Your task to perform on an android device: turn on priority inbox in the gmail app Image 0: 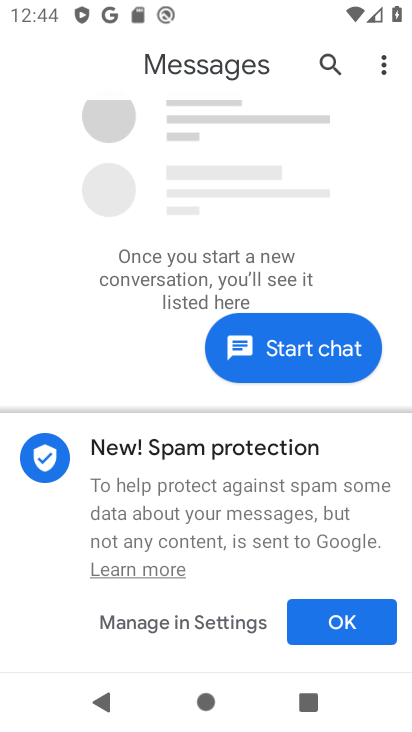
Step 0: press home button
Your task to perform on an android device: turn on priority inbox in the gmail app Image 1: 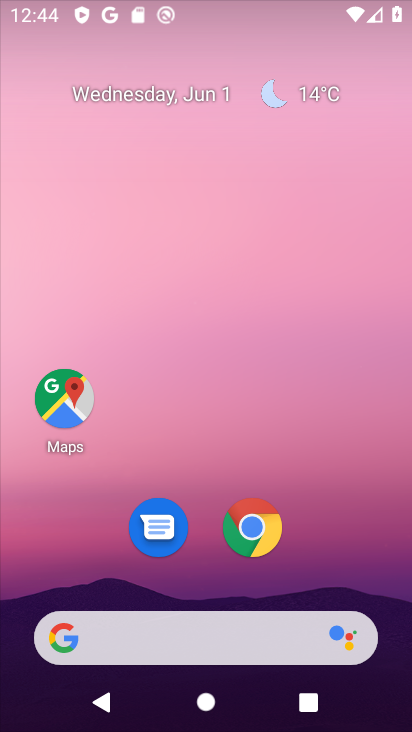
Step 1: drag from (245, 665) to (304, 127)
Your task to perform on an android device: turn on priority inbox in the gmail app Image 2: 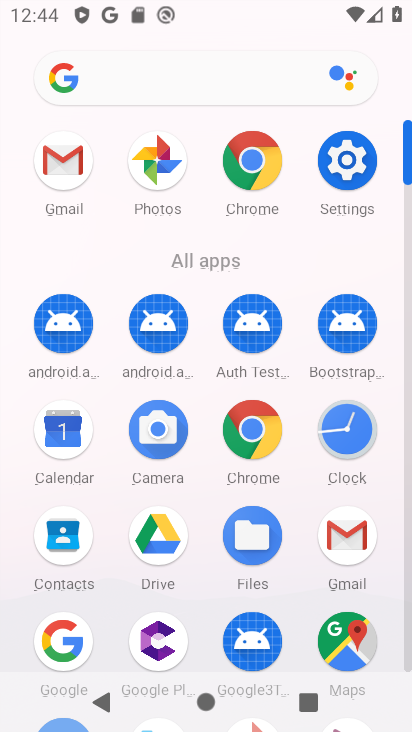
Step 2: click (358, 557)
Your task to perform on an android device: turn on priority inbox in the gmail app Image 3: 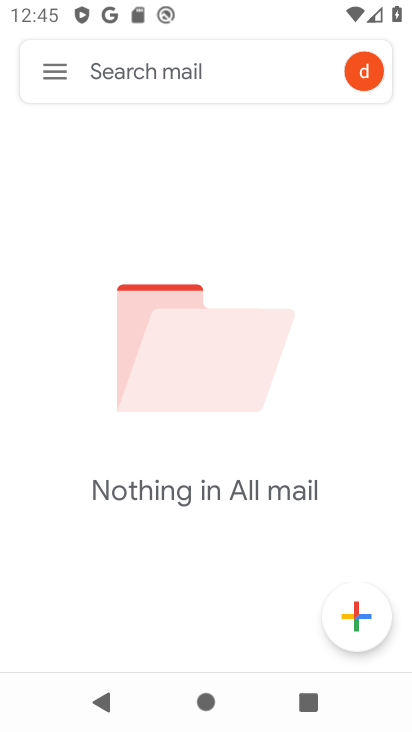
Step 3: click (76, 108)
Your task to perform on an android device: turn on priority inbox in the gmail app Image 4: 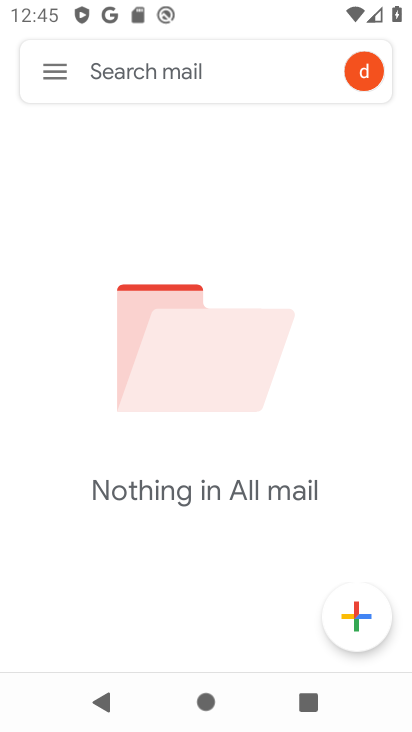
Step 4: click (63, 84)
Your task to perform on an android device: turn on priority inbox in the gmail app Image 5: 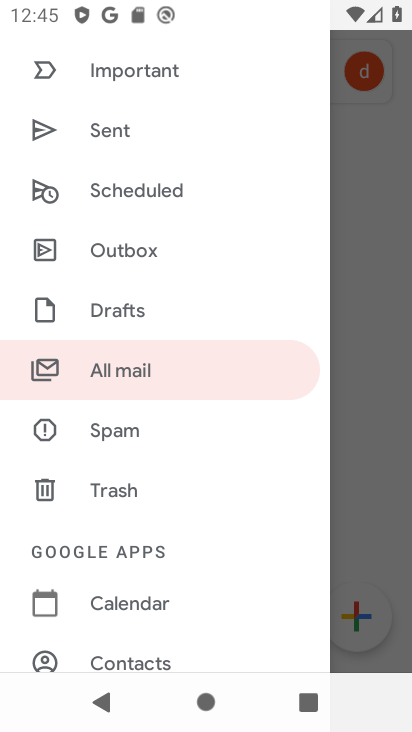
Step 5: drag from (134, 627) to (204, 138)
Your task to perform on an android device: turn on priority inbox in the gmail app Image 6: 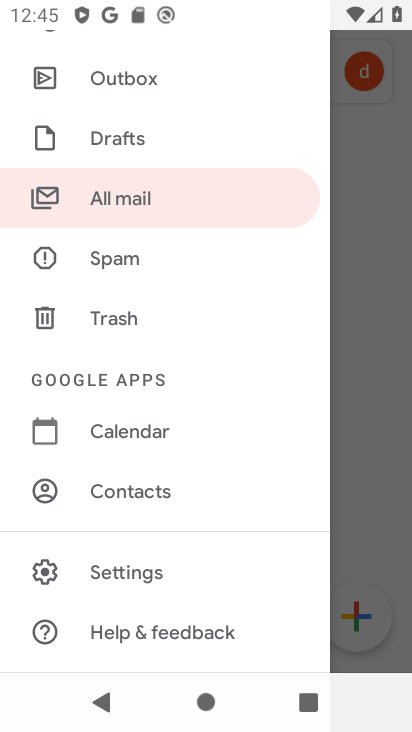
Step 6: click (120, 576)
Your task to perform on an android device: turn on priority inbox in the gmail app Image 7: 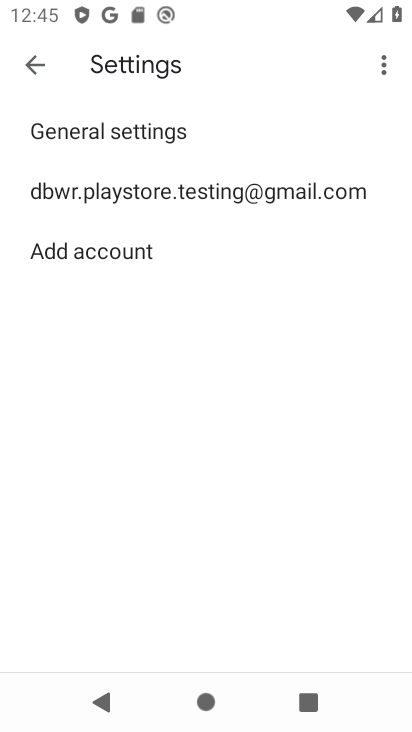
Step 7: click (99, 202)
Your task to perform on an android device: turn on priority inbox in the gmail app Image 8: 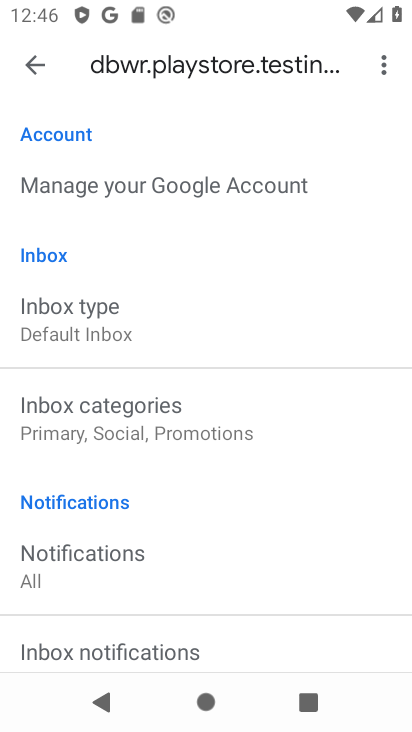
Step 8: click (106, 319)
Your task to perform on an android device: turn on priority inbox in the gmail app Image 9: 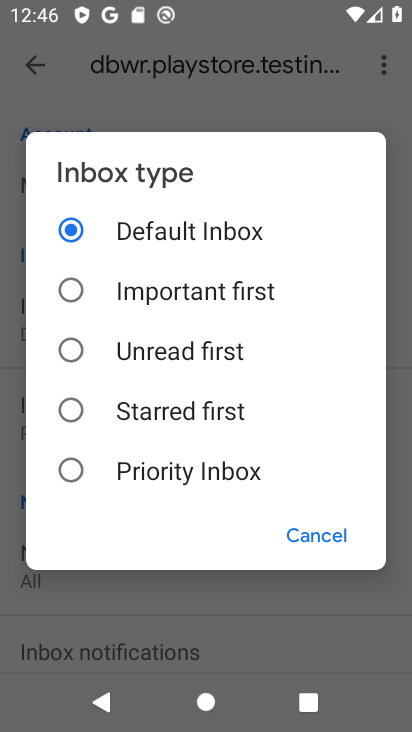
Step 9: click (96, 480)
Your task to perform on an android device: turn on priority inbox in the gmail app Image 10: 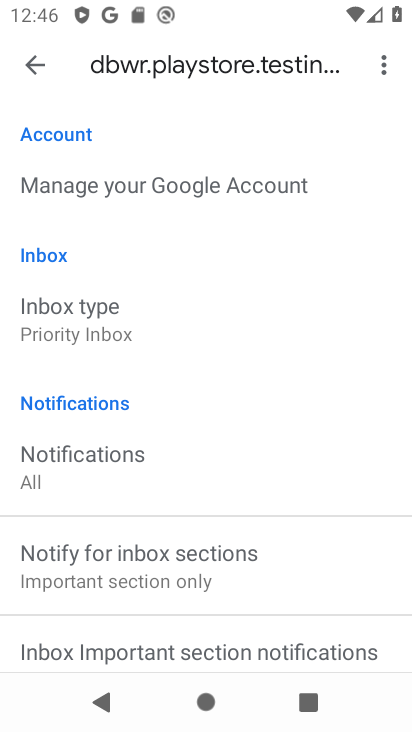
Step 10: task complete